Your task to perform on an android device: Go to sound settings Image 0: 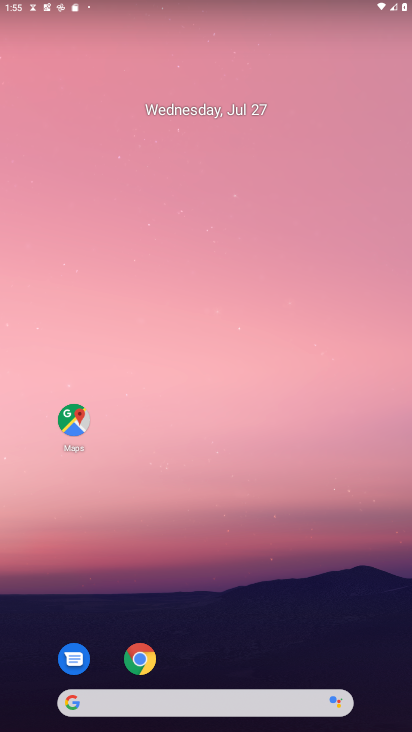
Step 0: drag from (41, 572) to (270, 156)
Your task to perform on an android device: Go to sound settings Image 1: 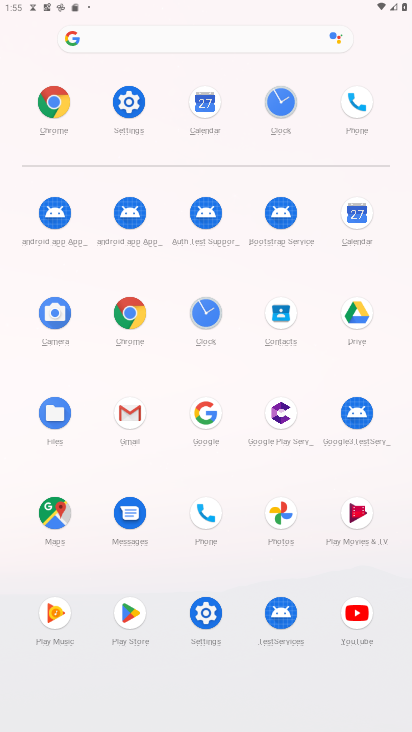
Step 1: click (127, 89)
Your task to perform on an android device: Go to sound settings Image 2: 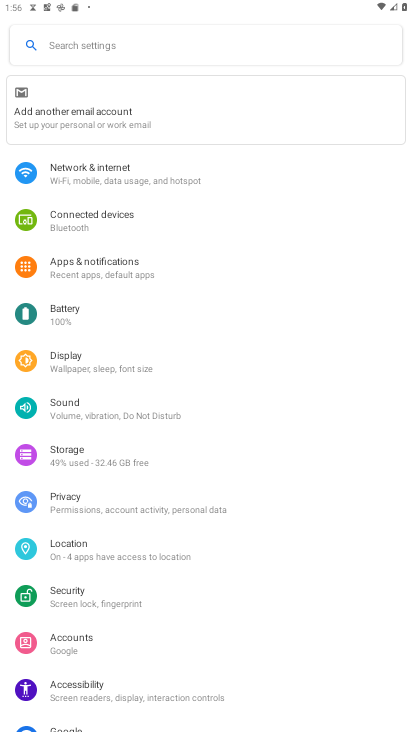
Step 2: click (97, 408)
Your task to perform on an android device: Go to sound settings Image 3: 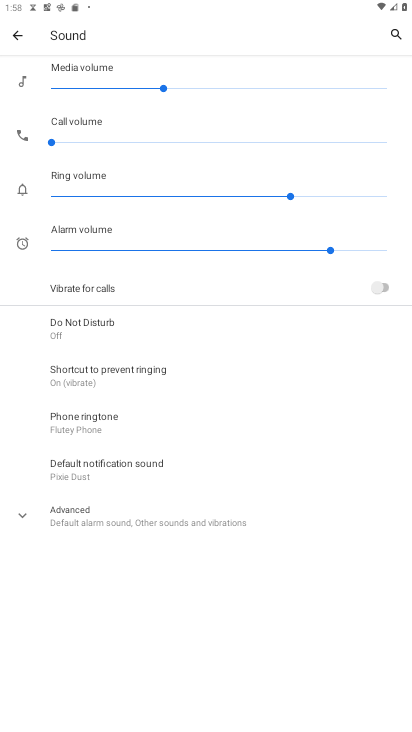
Step 3: task complete